Your task to perform on an android device: Open Yahoo.com Image 0: 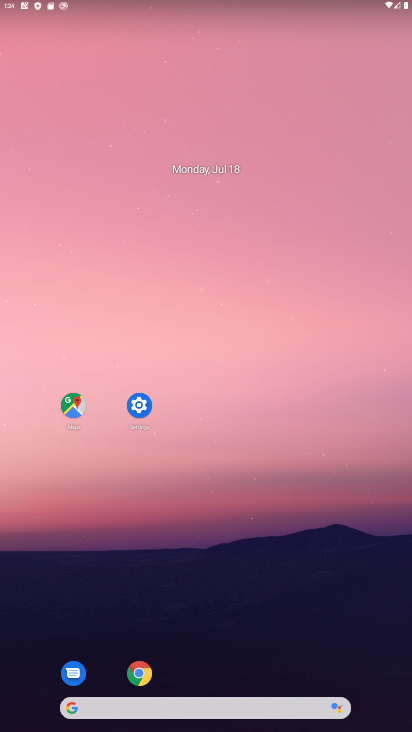
Step 0: drag from (388, 711) to (313, 139)
Your task to perform on an android device: Open Yahoo.com Image 1: 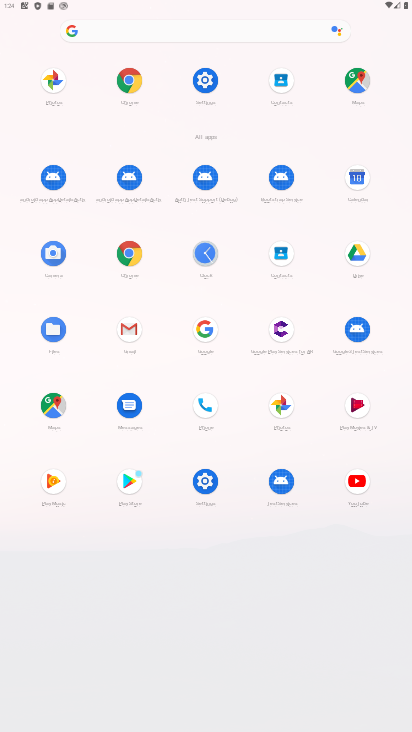
Step 1: click (134, 75)
Your task to perform on an android device: Open Yahoo.com Image 2: 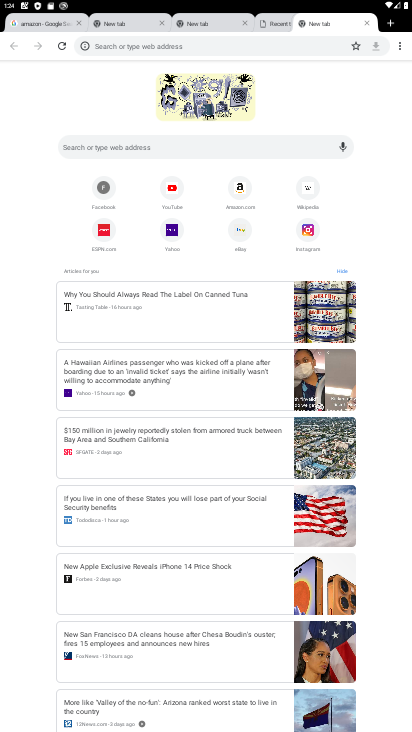
Step 2: click (123, 150)
Your task to perform on an android device: Open Yahoo.com Image 3: 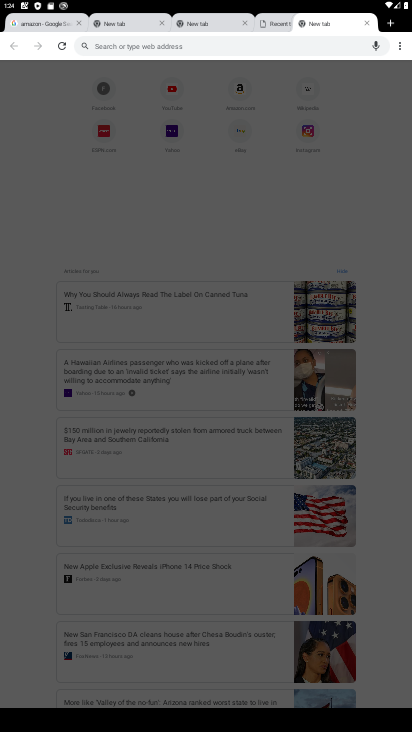
Step 3: type "Yahoo.com"
Your task to perform on an android device: Open Yahoo.com Image 4: 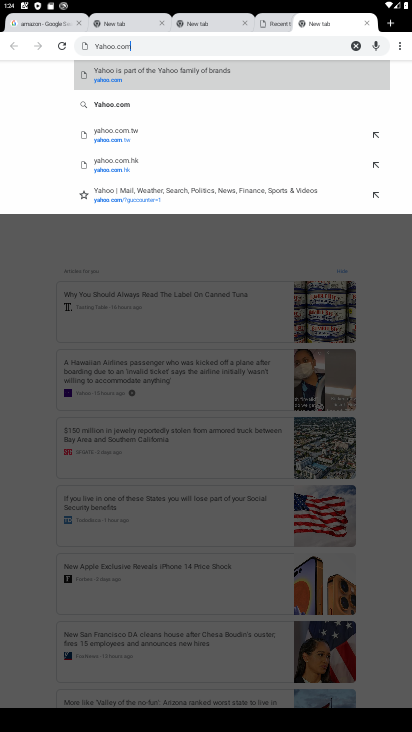
Step 4: click (107, 94)
Your task to perform on an android device: Open Yahoo.com Image 5: 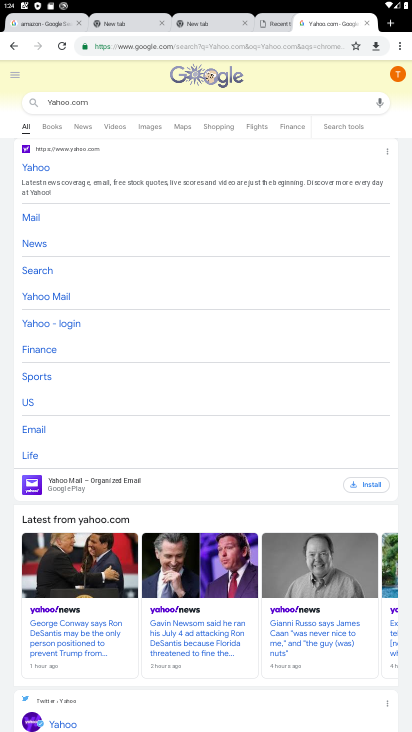
Step 5: task complete